Your task to perform on an android device: Open calendar and show me the fourth week of next month Image 0: 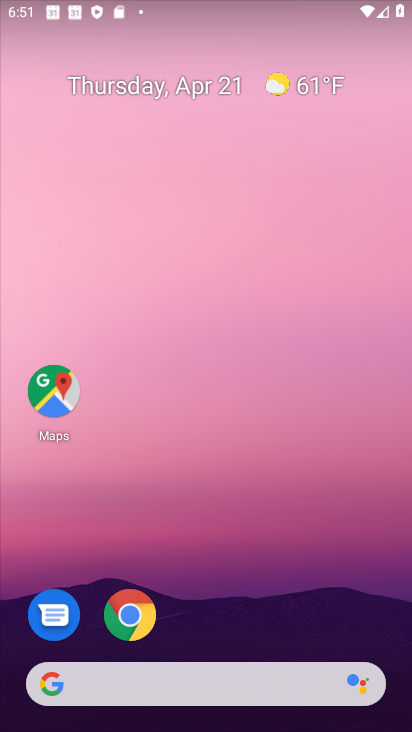
Step 0: drag from (203, 622) to (325, 10)
Your task to perform on an android device: Open calendar and show me the fourth week of next month Image 1: 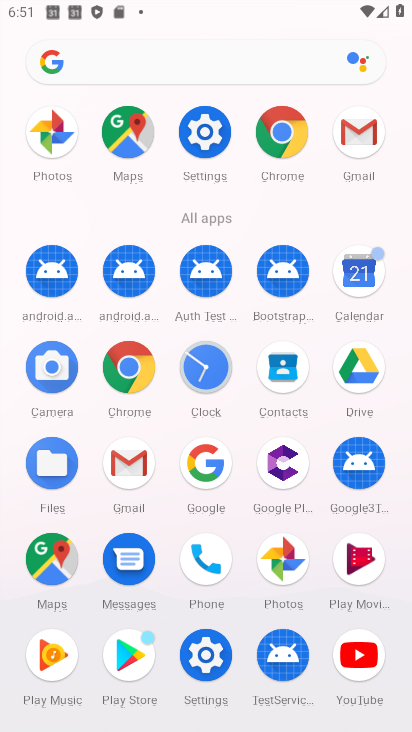
Step 1: click (370, 274)
Your task to perform on an android device: Open calendar and show me the fourth week of next month Image 2: 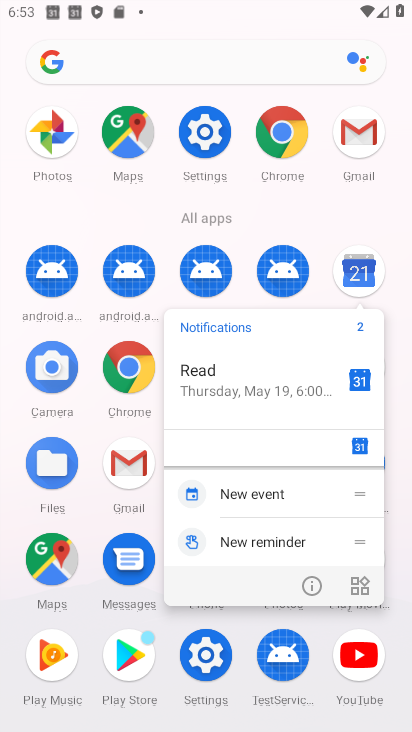
Step 2: click (300, 585)
Your task to perform on an android device: Open calendar and show me the fourth week of next month Image 3: 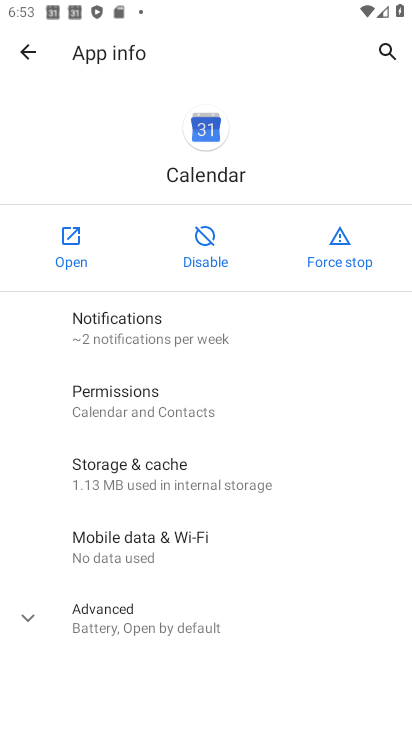
Step 3: click (65, 273)
Your task to perform on an android device: Open calendar and show me the fourth week of next month Image 4: 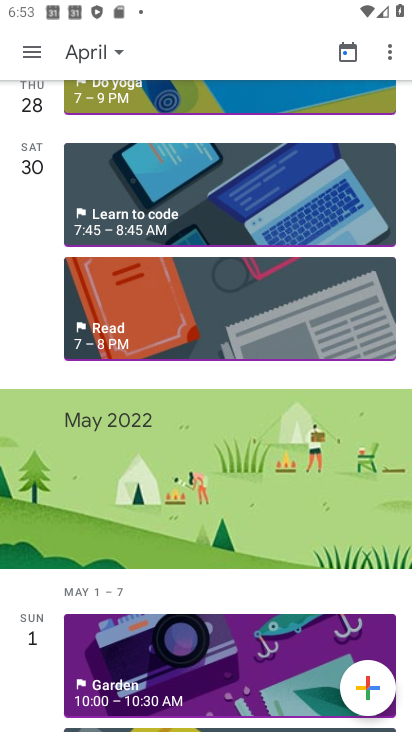
Step 4: click (97, 61)
Your task to perform on an android device: Open calendar and show me the fourth week of next month Image 5: 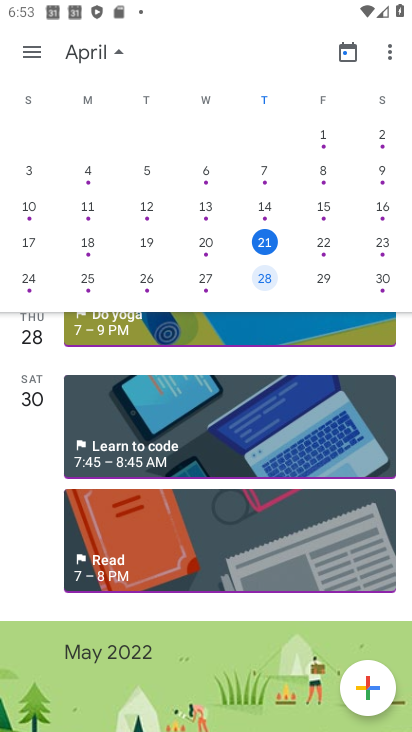
Step 5: drag from (319, 207) to (1, 395)
Your task to perform on an android device: Open calendar and show me the fourth week of next month Image 6: 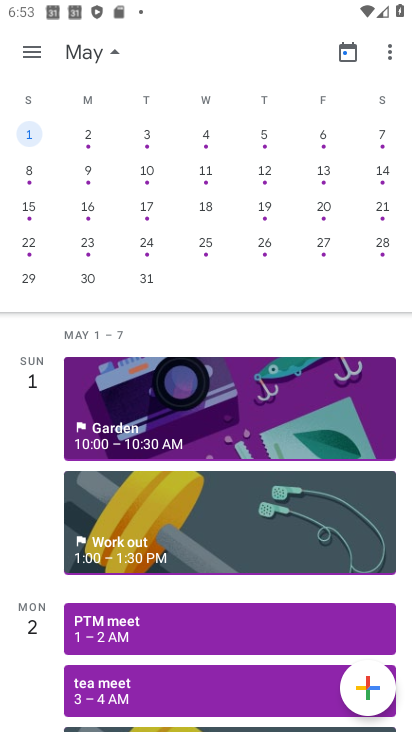
Step 6: click (215, 252)
Your task to perform on an android device: Open calendar and show me the fourth week of next month Image 7: 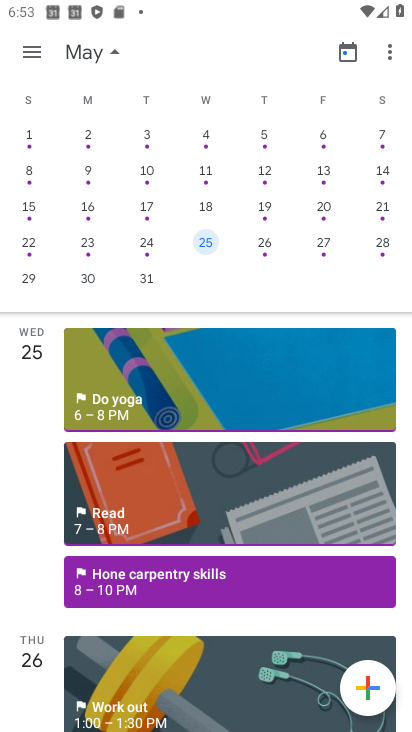
Step 7: click (265, 246)
Your task to perform on an android device: Open calendar and show me the fourth week of next month Image 8: 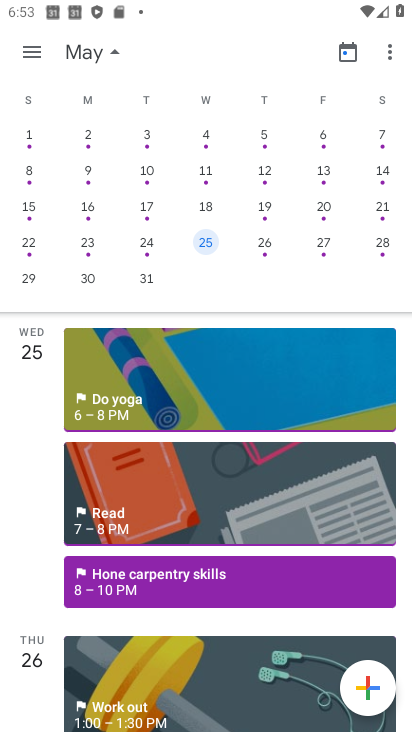
Step 8: task complete